Your task to perform on an android device: Open Chrome and go to settings Image 0: 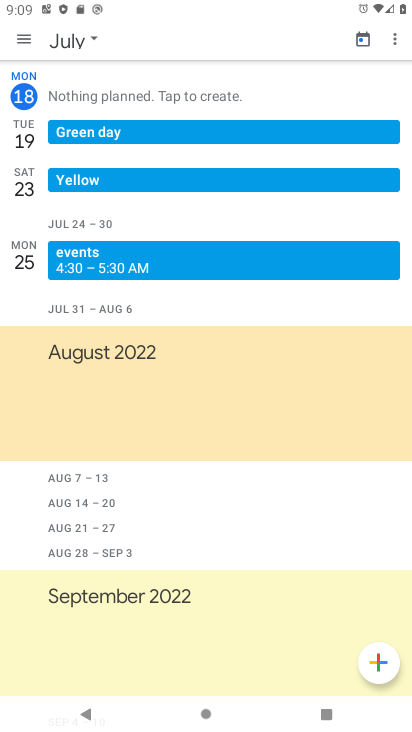
Step 0: press home button
Your task to perform on an android device: Open Chrome and go to settings Image 1: 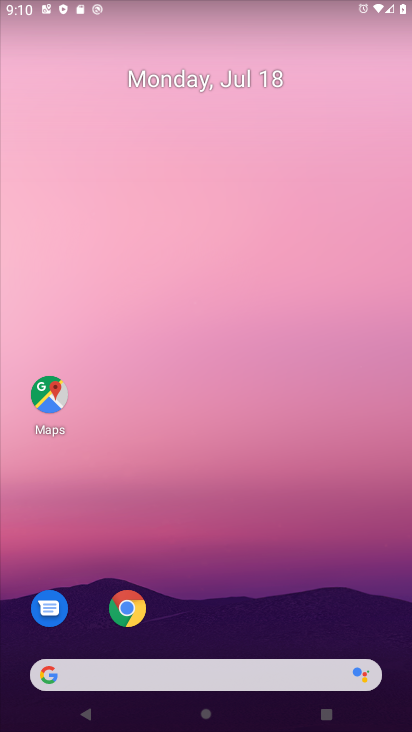
Step 1: drag from (250, 718) to (257, 148)
Your task to perform on an android device: Open Chrome and go to settings Image 2: 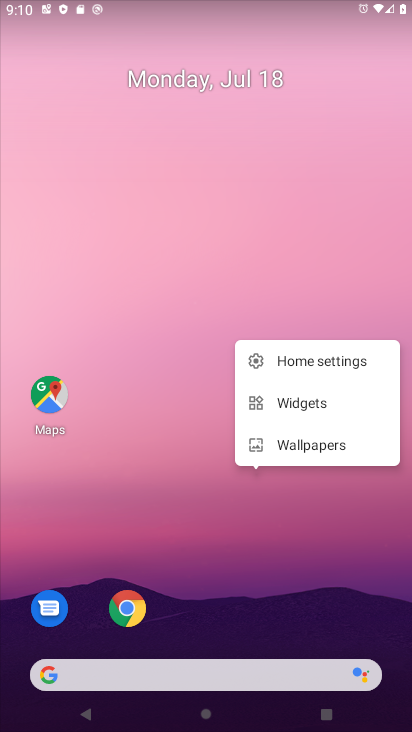
Step 2: click (144, 393)
Your task to perform on an android device: Open Chrome and go to settings Image 3: 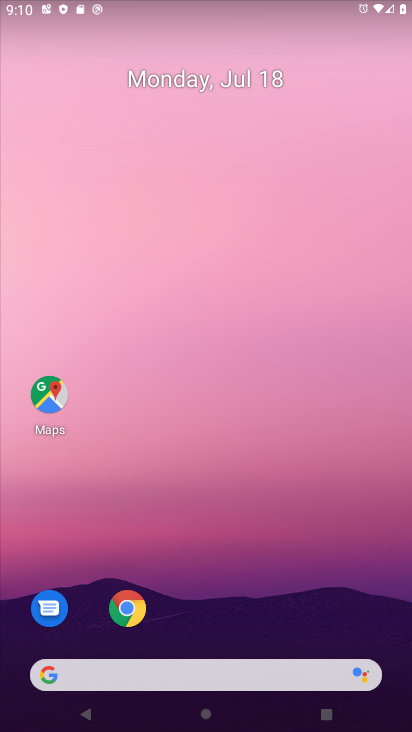
Step 3: click (130, 609)
Your task to perform on an android device: Open Chrome and go to settings Image 4: 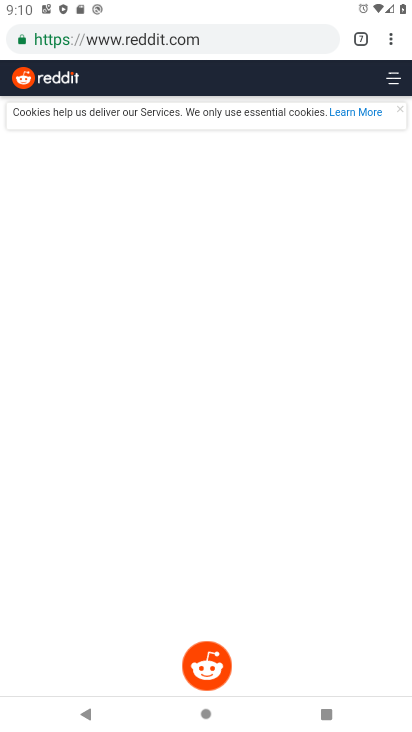
Step 4: click (392, 38)
Your task to perform on an android device: Open Chrome and go to settings Image 5: 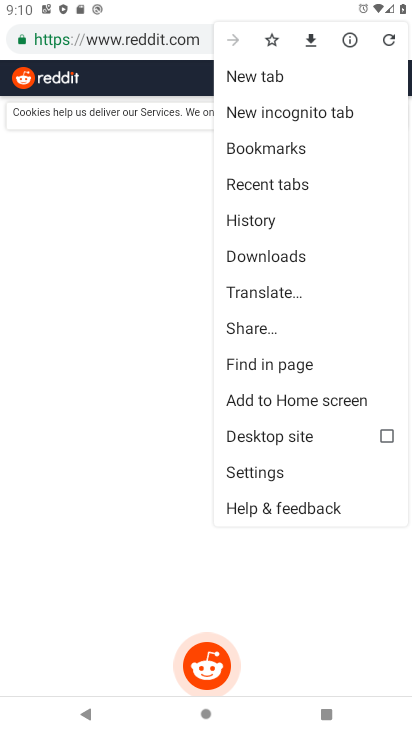
Step 5: click (251, 472)
Your task to perform on an android device: Open Chrome and go to settings Image 6: 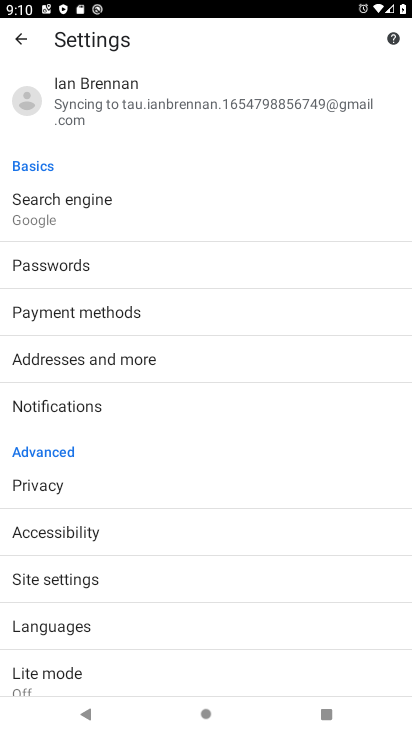
Step 6: task complete